Your task to perform on an android device: Go to location settings Image 0: 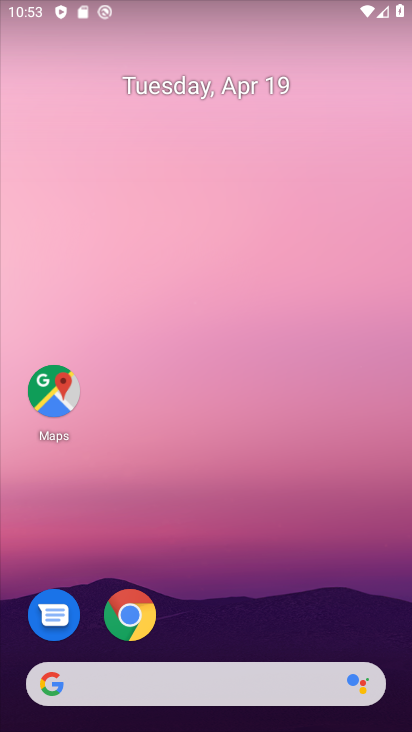
Step 0: drag from (212, 573) to (177, 136)
Your task to perform on an android device: Go to location settings Image 1: 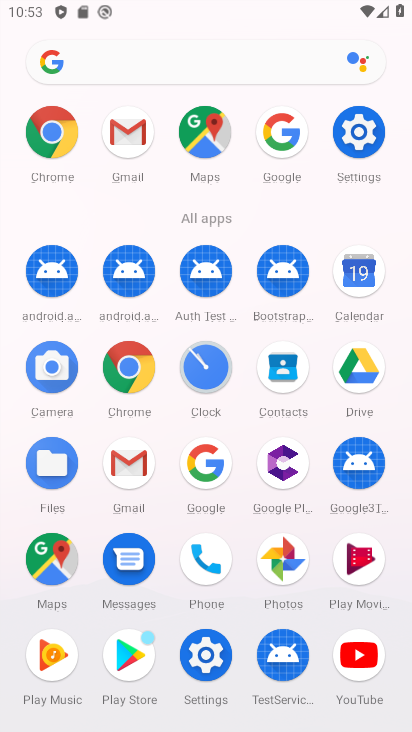
Step 1: click (360, 133)
Your task to perform on an android device: Go to location settings Image 2: 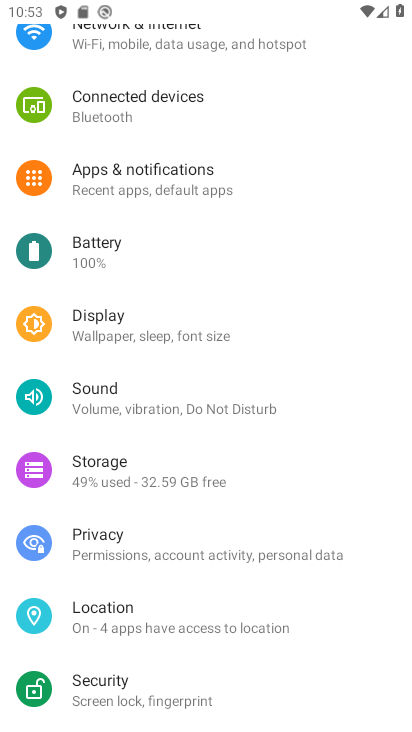
Step 2: click (137, 620)
Your task to perform on an android device: Go to location settings Image 3: 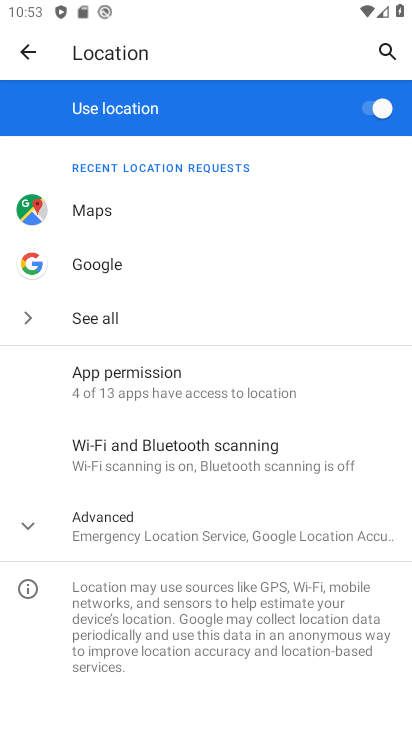
Step 3: click (161, 517)
Your task to perform on an android device: Go to location settings Image 4: 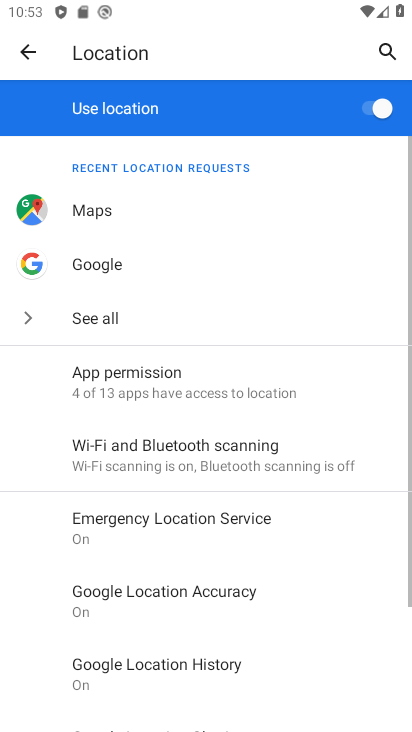
Step 4: task complete